Your task to perform on an android device: Do I have any events tomorrow? Image 0: 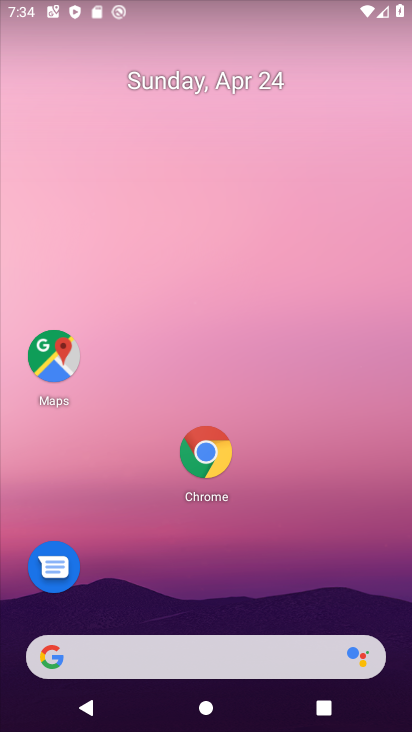
Step 0: drag from (314, 539) to (295, 40)
Your task to perform on an android device: Do I have any events tomorrow? Image 1: 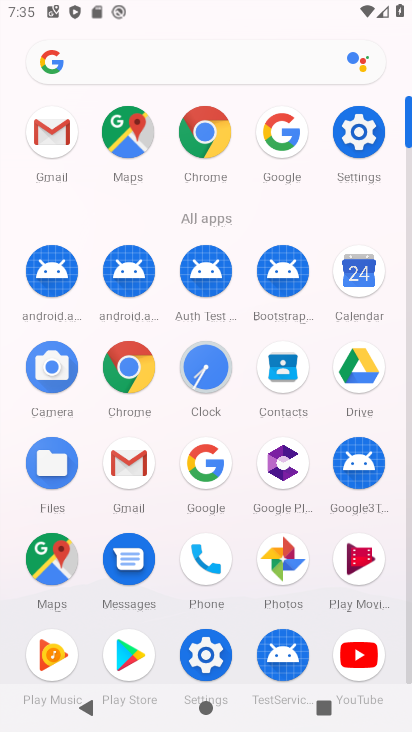
Step 1: click (367, 300)
Your task to perform on an android device: Do I have any events tomorrow? Image 2: 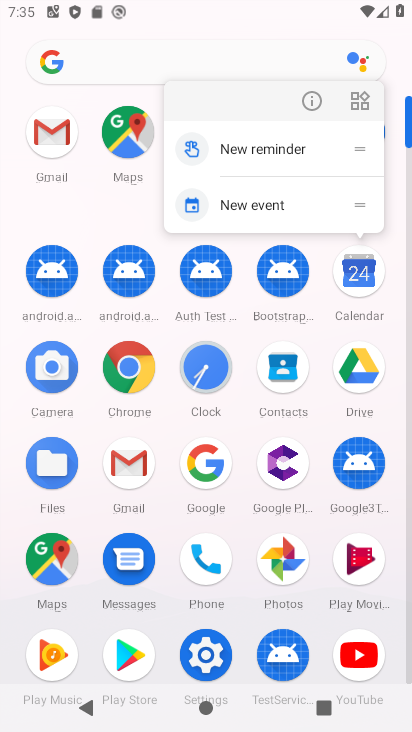
Step 2: click (367, 300)
Your task to perform on an android device: Do I have any events tomorrow? Image 3: 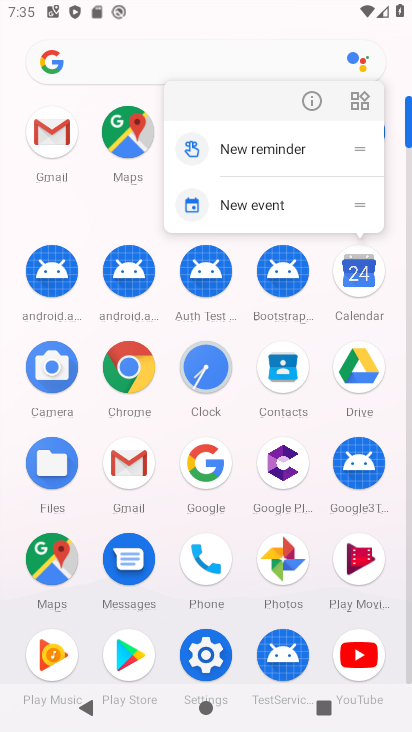
Step 3: click (367, 300)
Your task to perform on an android device: Do I have any events tomorrow? Image 4: 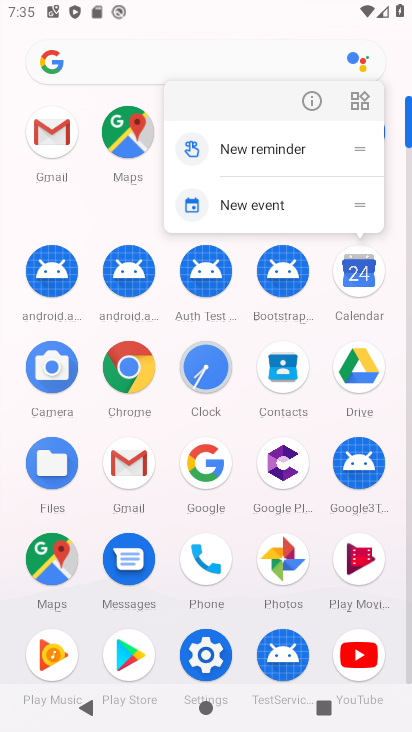
Step 4: click (367, 300)
Your task to perform on an android device: Do I have any events tomorrow? Image 5: 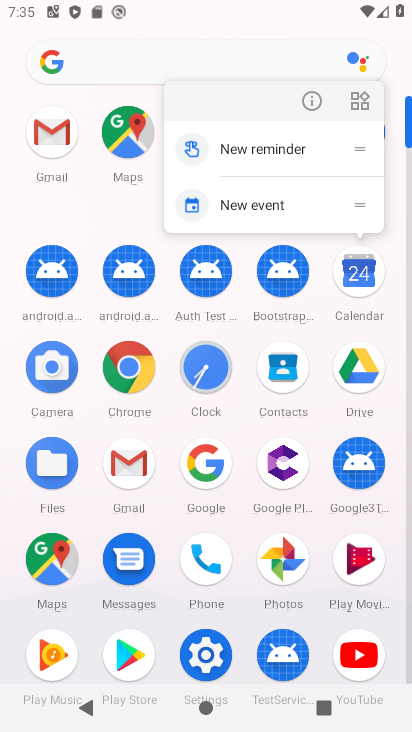
Step 5: click (367, 300)
Your task to perform on an android device: Do I have any events tomorrow? Image 6: 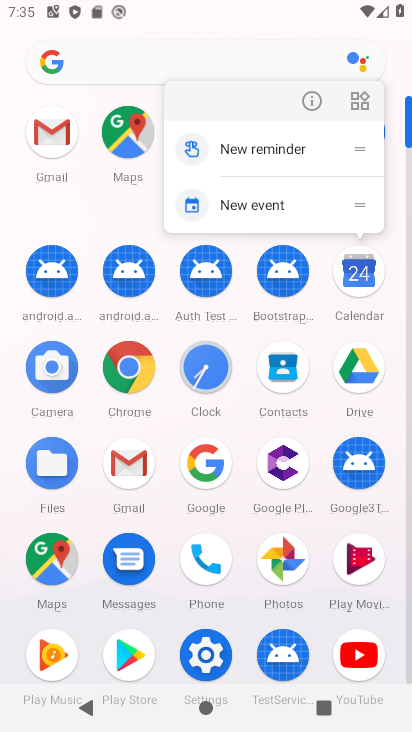
Step 6: click (367, 300)
Your task to perform on an android device: Do I have any events tomorrow? Image 7: 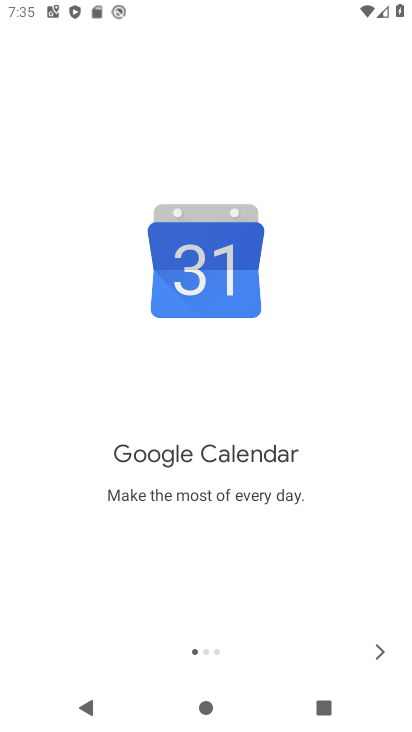
Step 7: click (367, 300)
Your task to perform on an android device: Do I have any events tomorrow? Image 8: 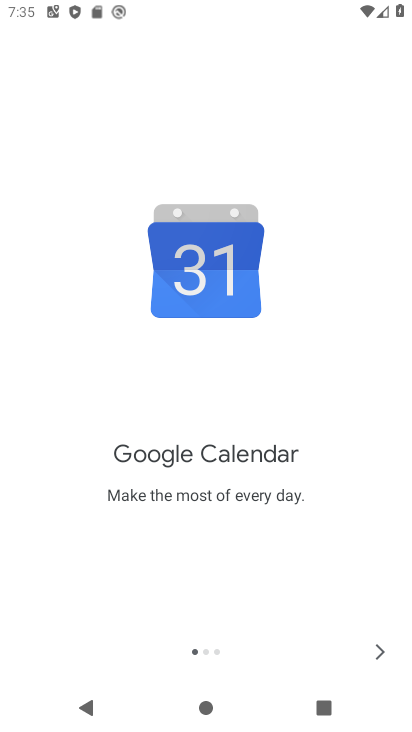
Step 8: click (373, 640)
Your task to perform on an android device: Do I have any events tomorrow? Image 9: 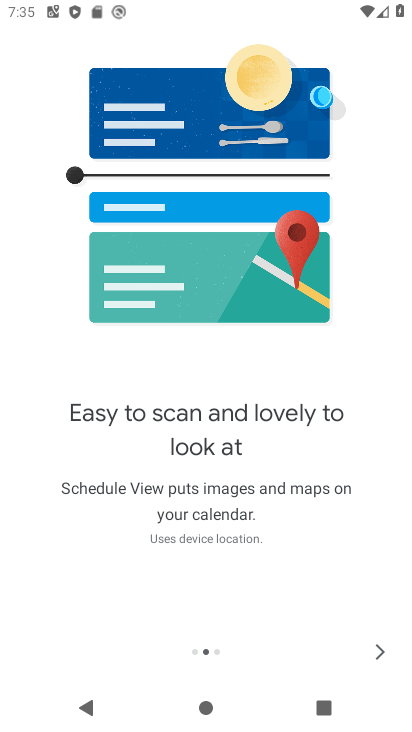
Step 9: click (393, 652)
Your task to perform on an android device: Do I have any events tomorrow? Image 10: 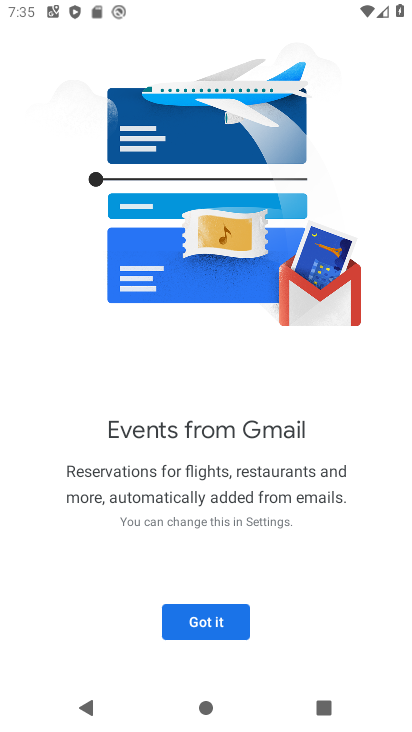
Step 10: click (199, 625)
Your task to perform on an android device: Do I have any events tomorrow? Image 11: 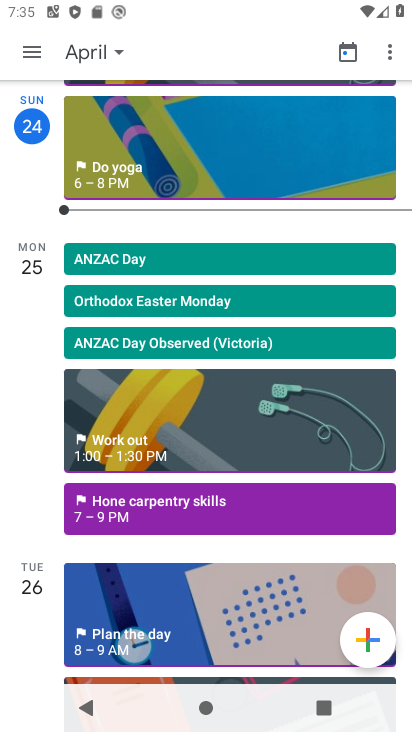
Step 11: click (89, 46)
Your task to perform on an android device: Do I have any events tomorrow? Image 12: 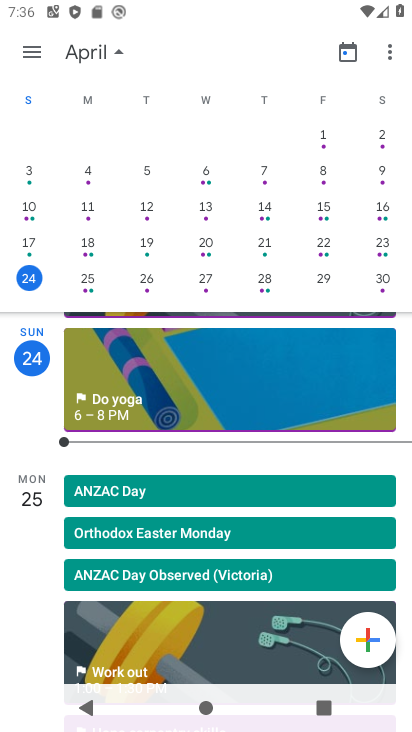
Step 12: click (73, 271)
Your task to perform on an android device: Do I have any events tomorrow? Image 13: 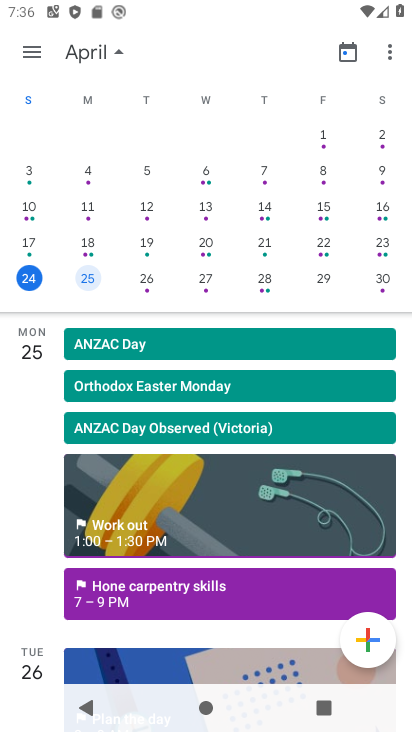
Step 13: task complete